Your task to perform on an android device: Go to eBay Image 0: 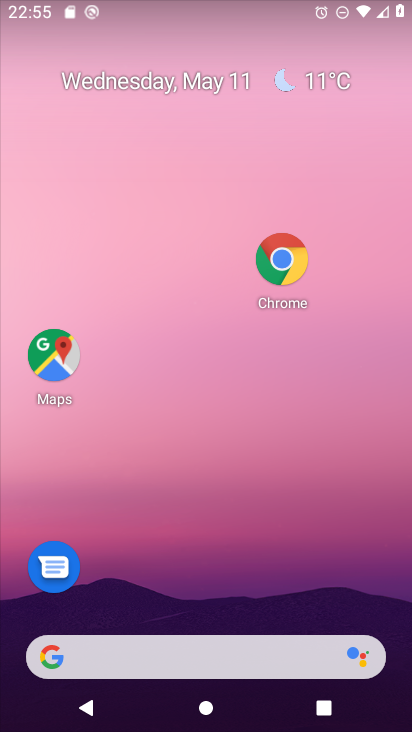
Step 0: press home button
Your task to perform on an android device: Go to eBay Image 1: 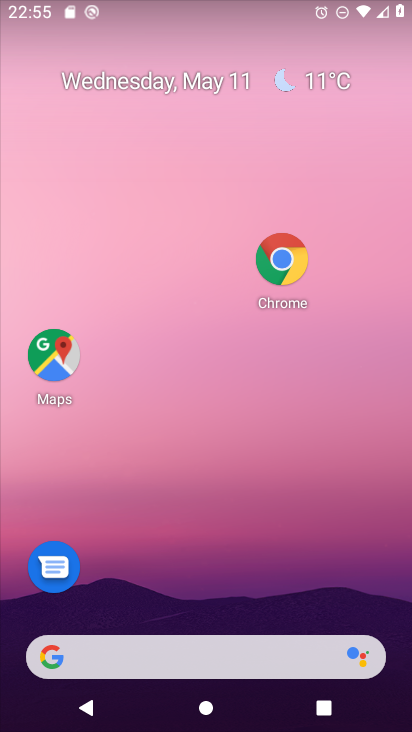
Step 1: drag from (166, 658) to (313, 146)
Your task to perform on an android device: Go to eBay Image 2: 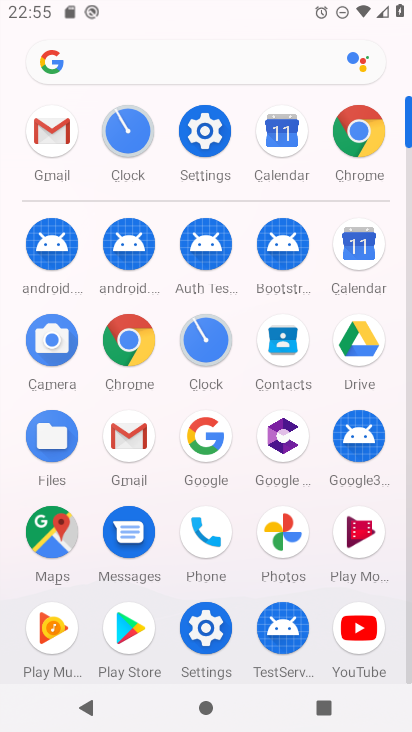
Step 2: click (354, 140)
Your task to perform on an android device: Go to eBay Image 3: 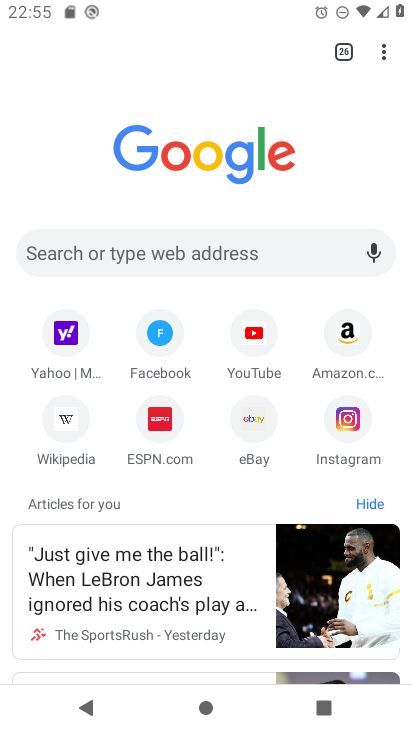
Step 3: click (245, 425)
Your task to perform on an android device: Go to eBay Image 4: 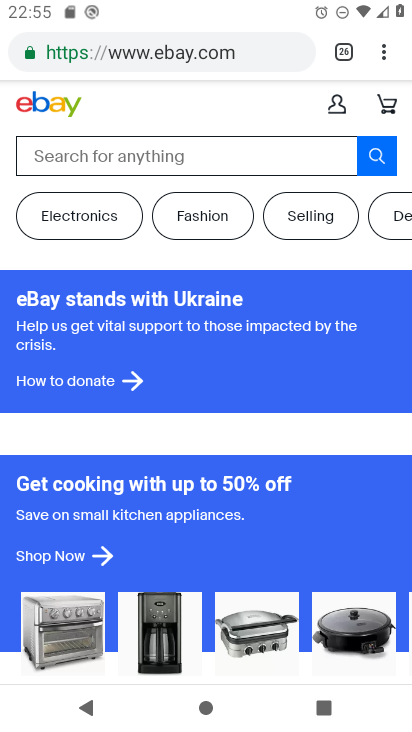
Step 4: task complete